Your task to perform on an android device: check battery use Image 0: 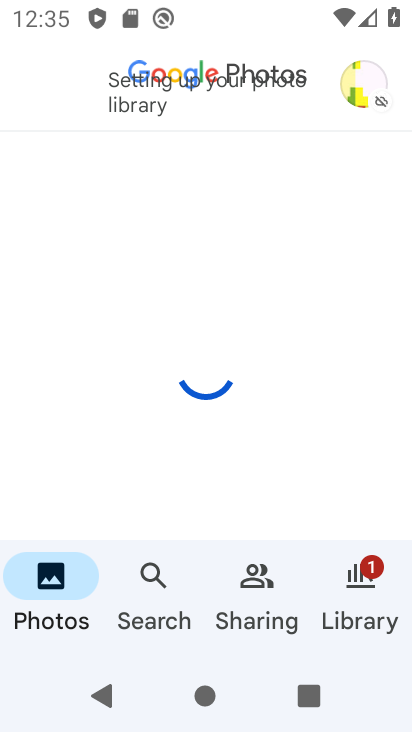
Step 0: press home button
Your task to perform on an android device: check battery use Image 1: 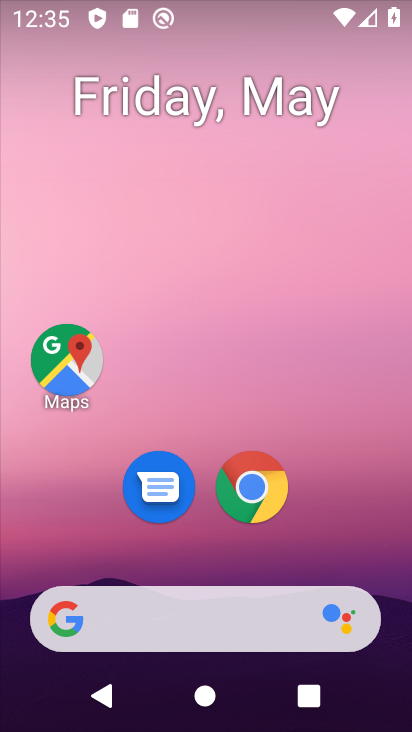
Step 1: drag from (139, 471) to (249, 153)
Your task to perform on an android device: check battery use Image 2: 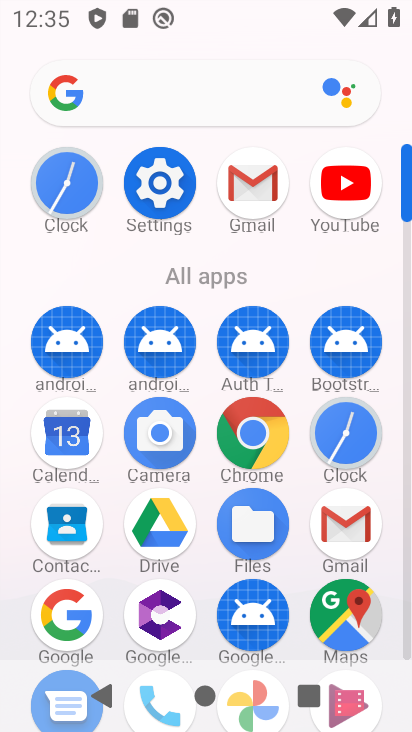
Step 2: drag from (202, 650) to (272, 386)
Your task to perform on an android device: check battery use Image 3: 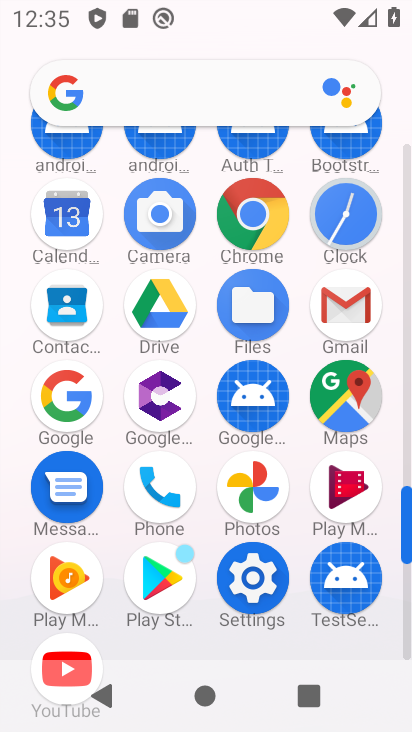
Step 3: click (242, 568)
Your task to perform on an android device: check battery use Image 4: 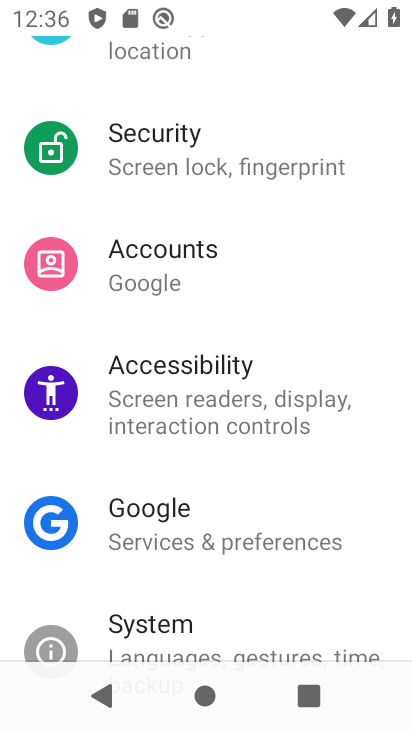
Step 4: drag from (190, 581) to (322, 187)
Your task to perform on an android device: check battery use Image 5: 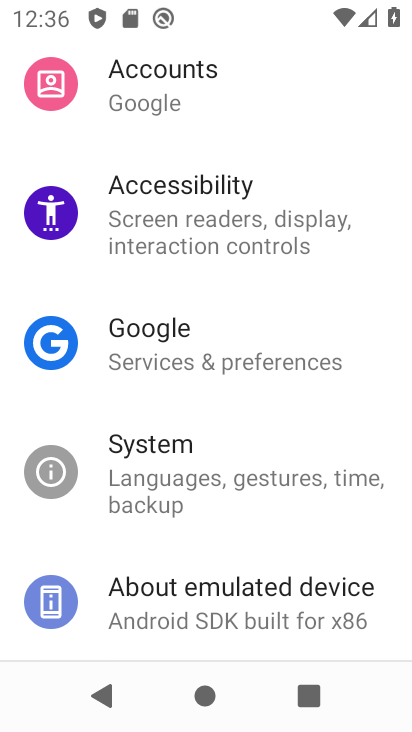
Step 5: drag from (222, 561) to (199, 682)
Your task to perform on an android device: check battery use Image 6: 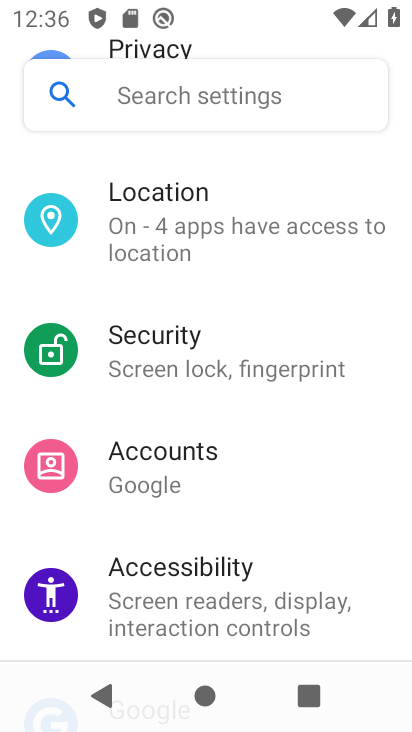
Step 6: drag from (280, 268) to (226, 560)
Your task to perform on an android device: check battery use Image 7: 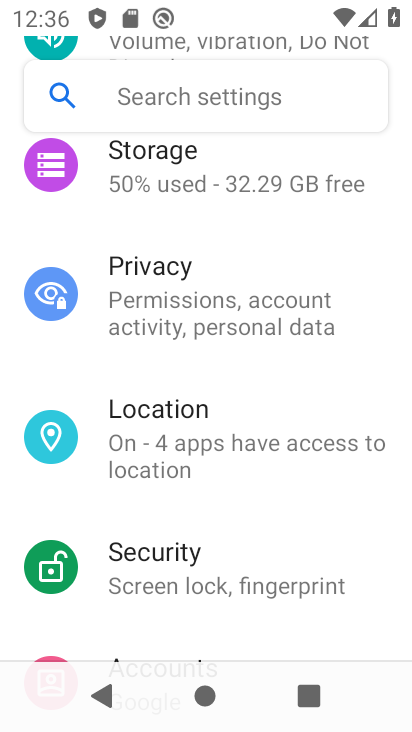
Step 7: drag from (233, 169) to (202, 590)
Your task to perform on an android device: check battery use Image 8: 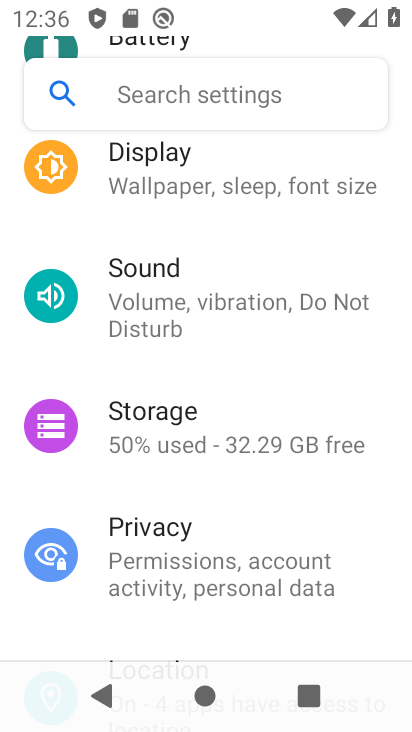
Step 8: drag from (229, 358) to (189, 600)
Your task to perform on an android device: check battery use Image 9: 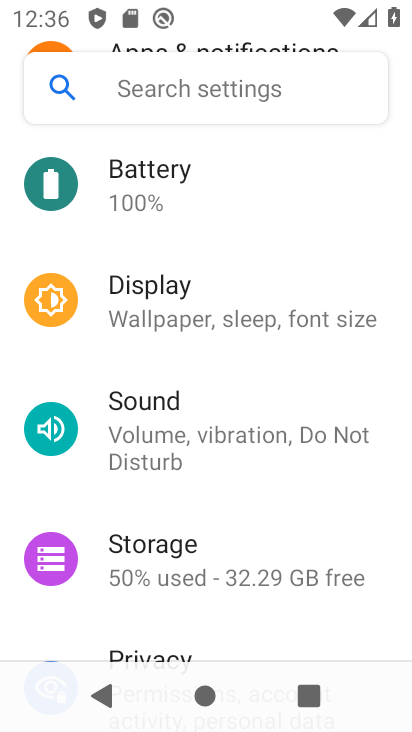
Step 9: click (231, 194)
Your task to perform on an android device: check battery use Image 10: 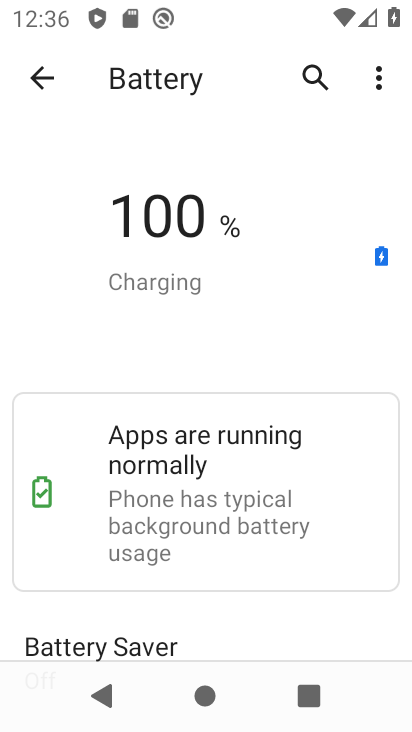
Step 10: drag from (220, 606) to (271, 369)
Your task to perform on an android device: check battery use Image 11: 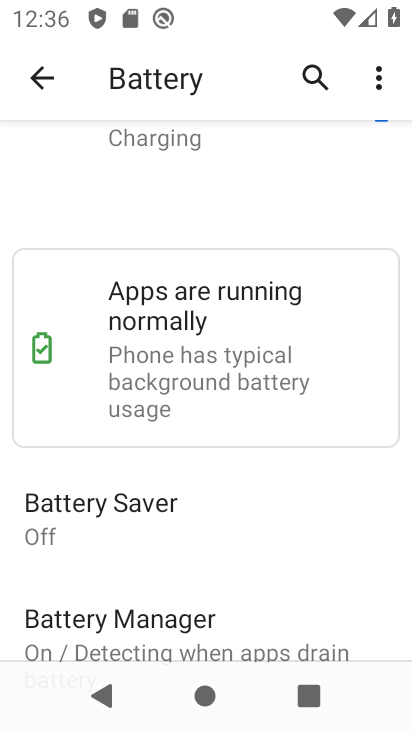
Step 11: click (378, 73)
Your task to perform on an android device: check battery use Image 12: 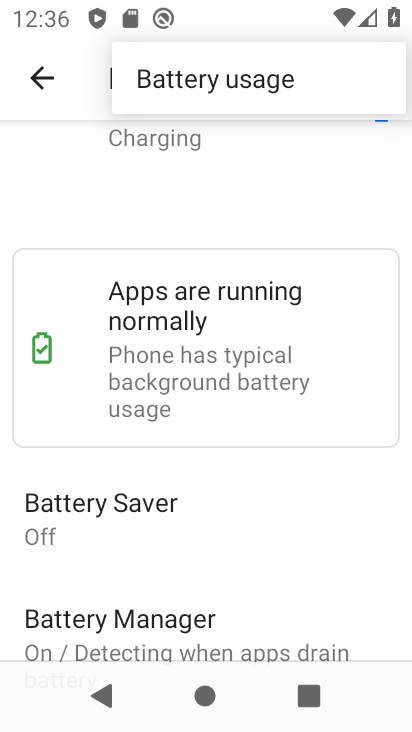
Step 12: click (359, 103)
Your task to perform on an android device: check battery use Image 13: 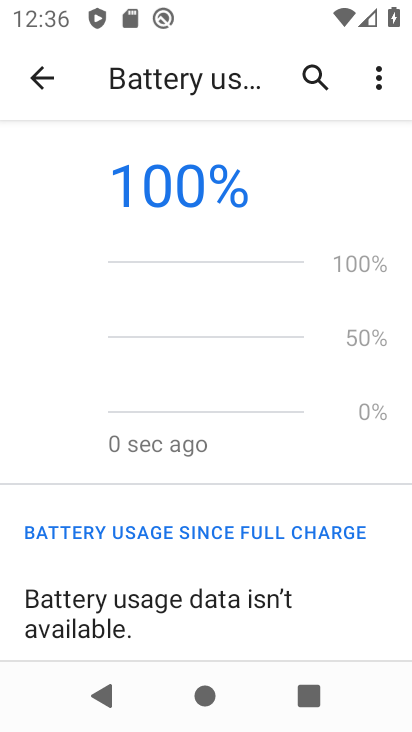
Step 13: task complete